Your task to perform on an android device: clear all cookies in the chrome app Image 0: 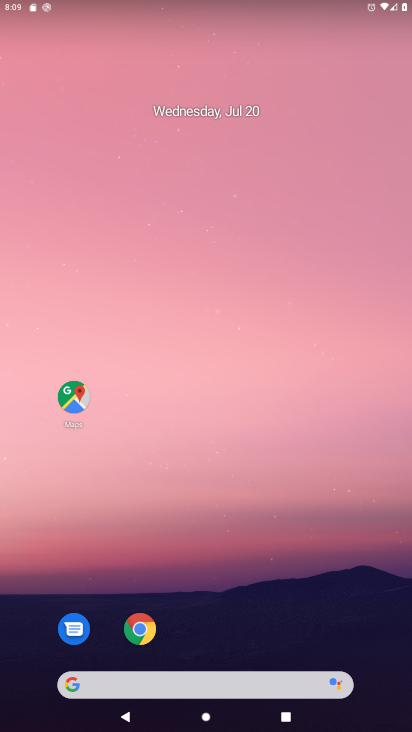
Step 0: click (135, 631)
Your task to perform on an android device: clear all cookies in the chrome app Image 1: 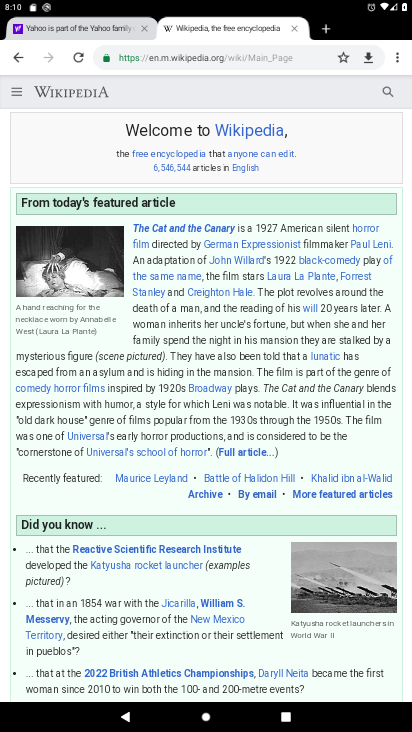
Step 1: click (399, 57)
Your task to perform on an android device: clear all cookies in the chrome app Image 2: 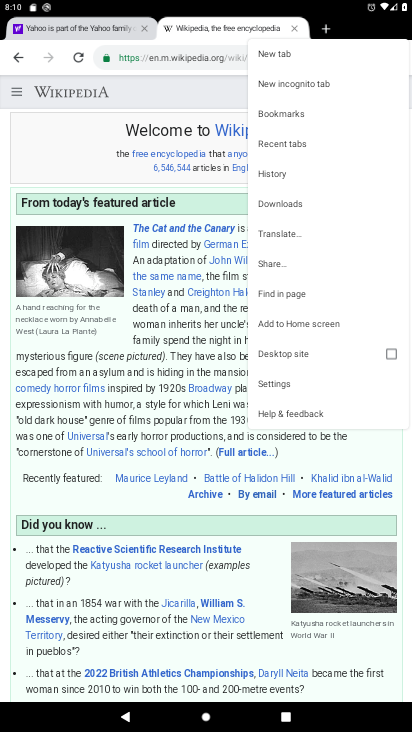
Step 2: click (289, 381)
Your task to perform on an android device: clear all cookies in the chrome app Image 3: 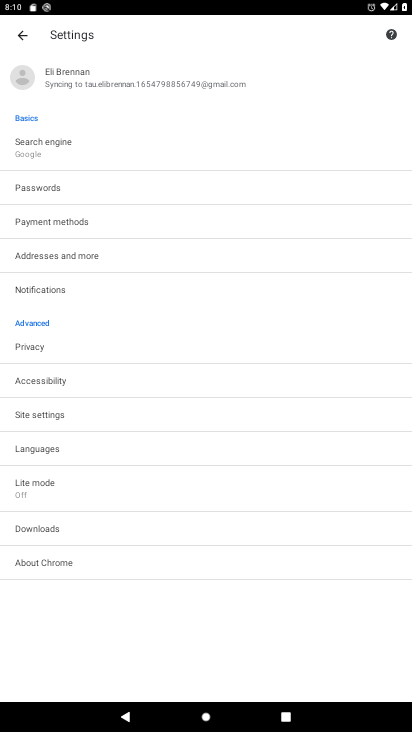
Step 3: click (111, 423)
Your task to perform on an android device: clear all cookies in the chrome app Image 4: 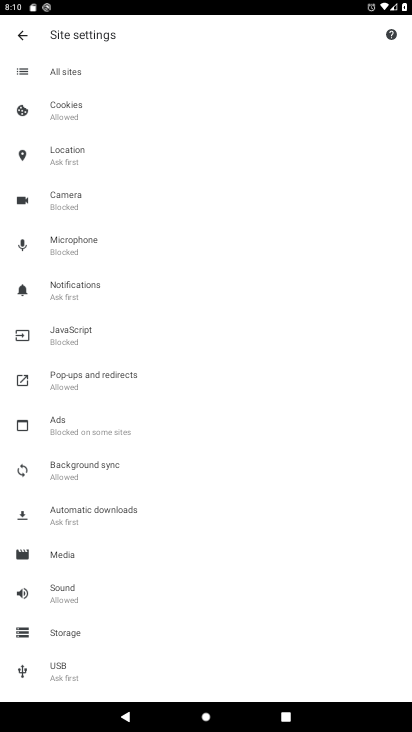
Step 4: click (73, 117)
Your task to perform on an android device: clear all cookies in the chrome app Image 5: 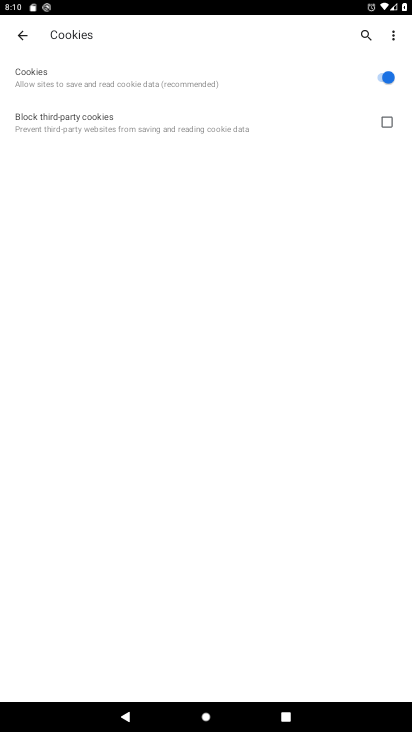
Step 5: click (17, 38)
Your task to perform on an android device: clear all cookies in the chrome app Image 6: 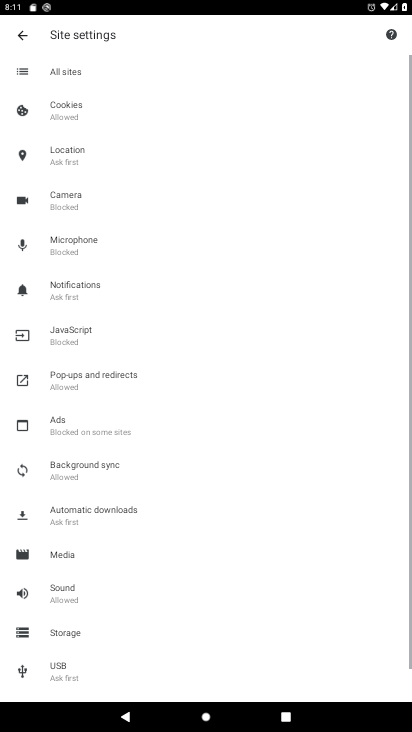
Step 6: click (17, 38)
Your task to perform on an android device: clear all cookies in the chrome app Image 7: 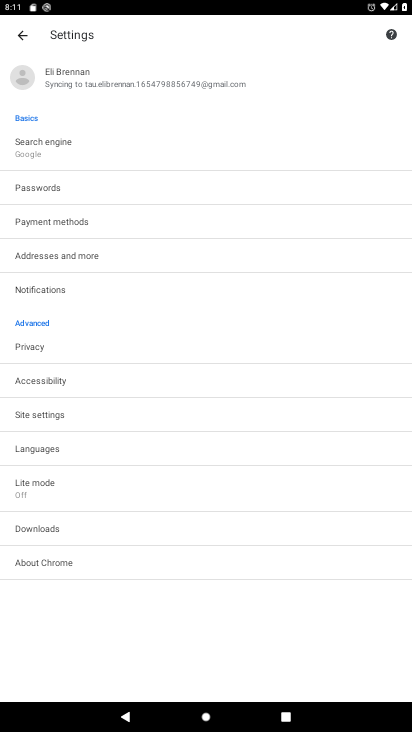
Step 7: click (62, 351)
Your task to perform on an android device: clear all cookies in the chrome app Image 8: 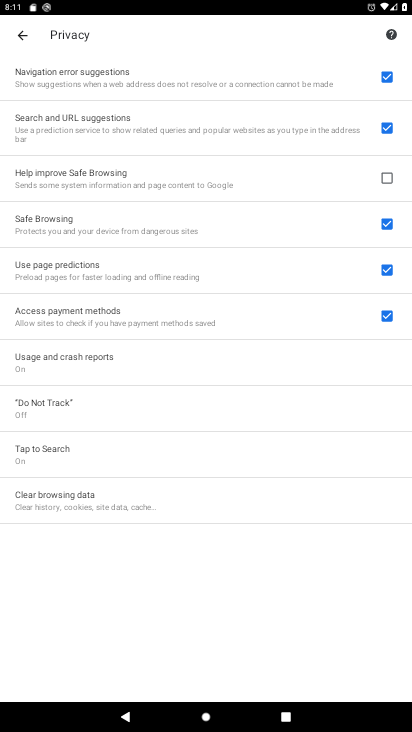
Step 8: click (93, 505)
Your task to perform on an android device: clear all cookies in the chrome app Image 9: 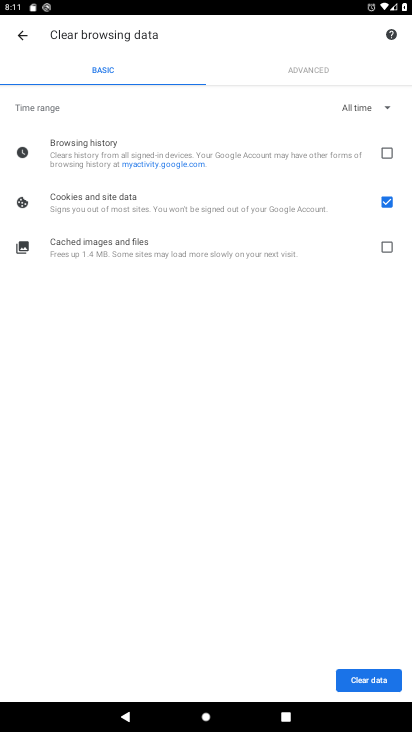
Step 9: click (370, 686)
Your task to perform on an android device: clear all cookies in the chrome app Image 10: 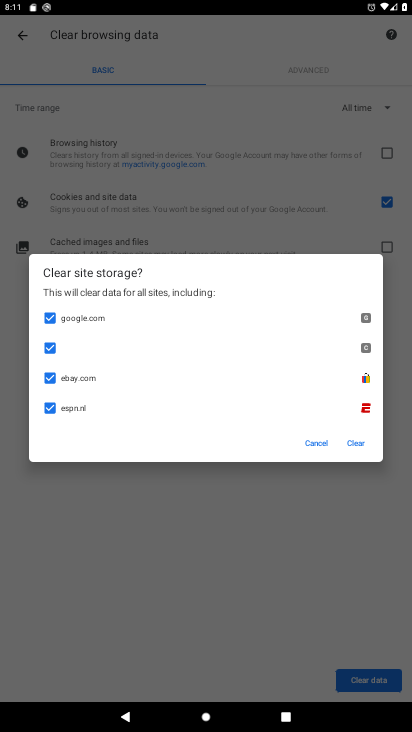
Step 10: click (352, 444)
Your task to perform on an android device: clear all cookies in the chrome app Image 11: 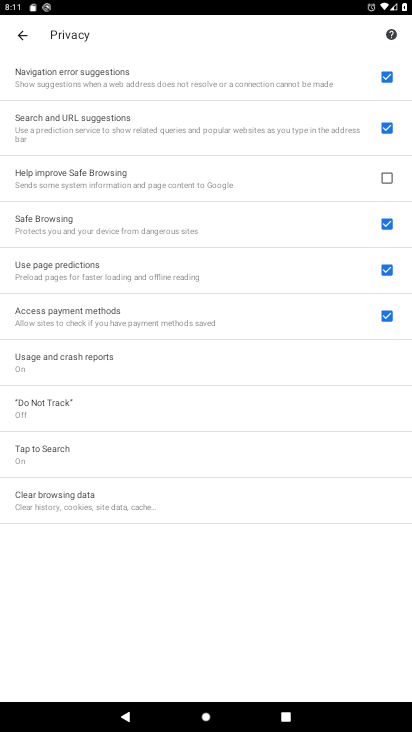
Step 11: task complete